Your task to perform on an android device: Set an alarm for 6pm Image 0: 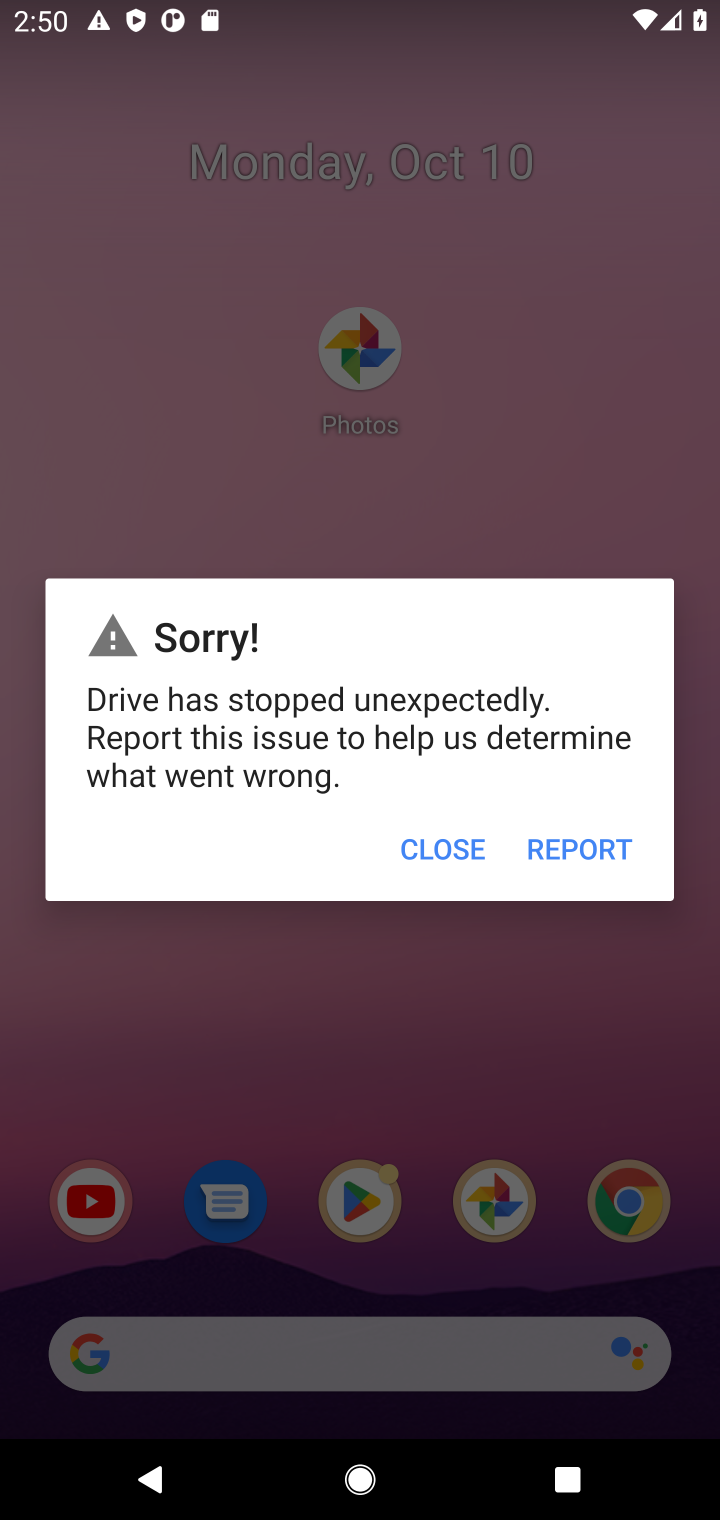
Step 0: click (442, 848)
Your task to perform on an android device: Set an alarm for 6pm Image 1: 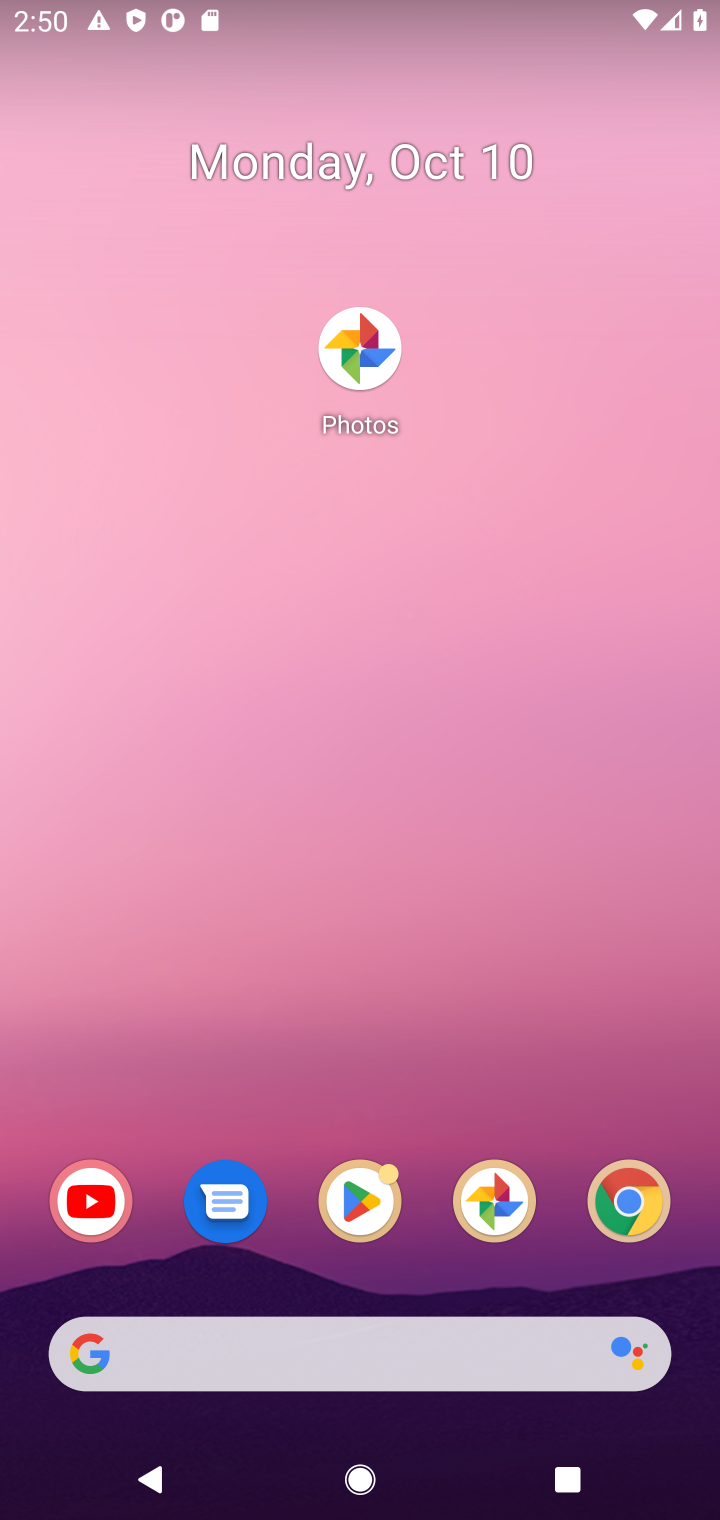
Step 1: drag from (454, 1128) to (470, 150)
Your task to perform on an android device: Set an alarm for 6pm Image 2: 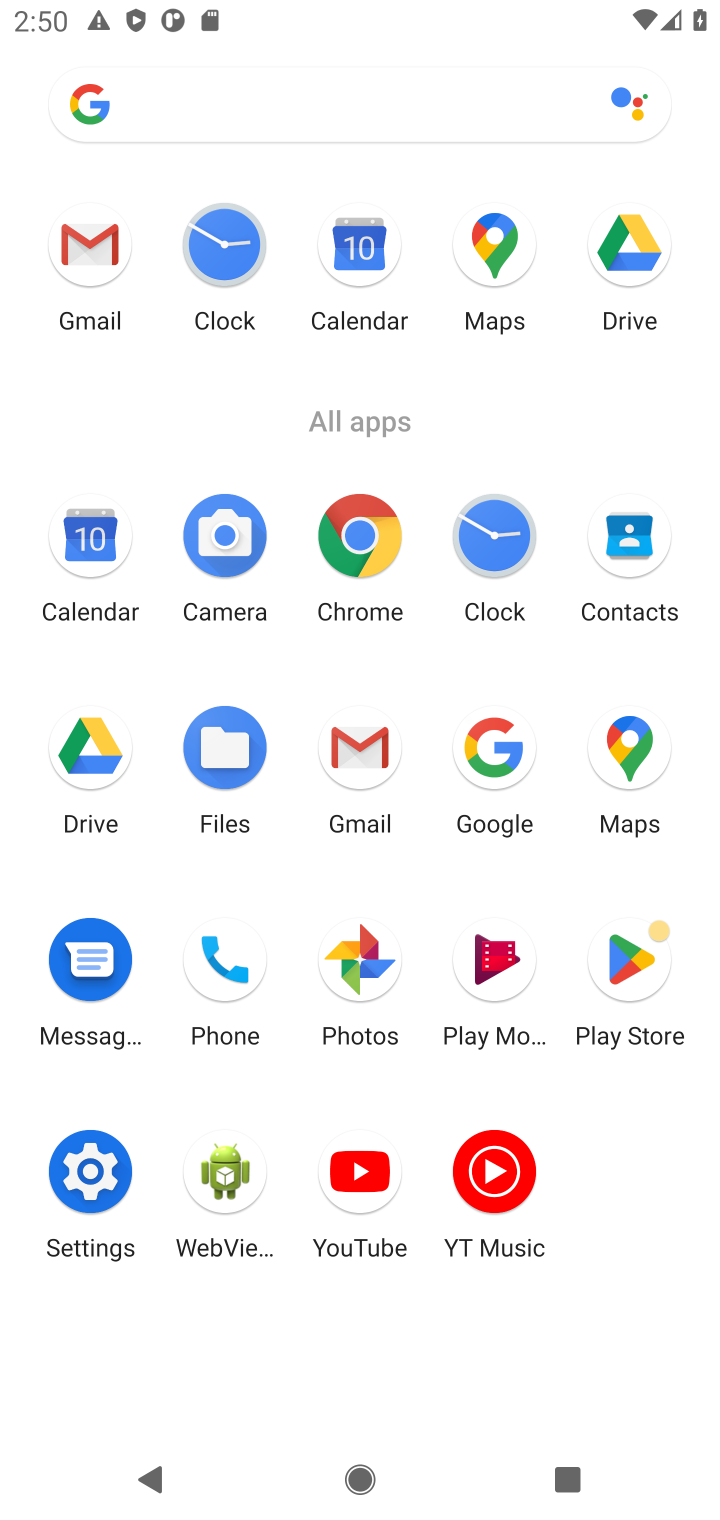
Step 2: click (499, 538)
Your task to perform on an android device: Set an alarm for 6pm Image 3: 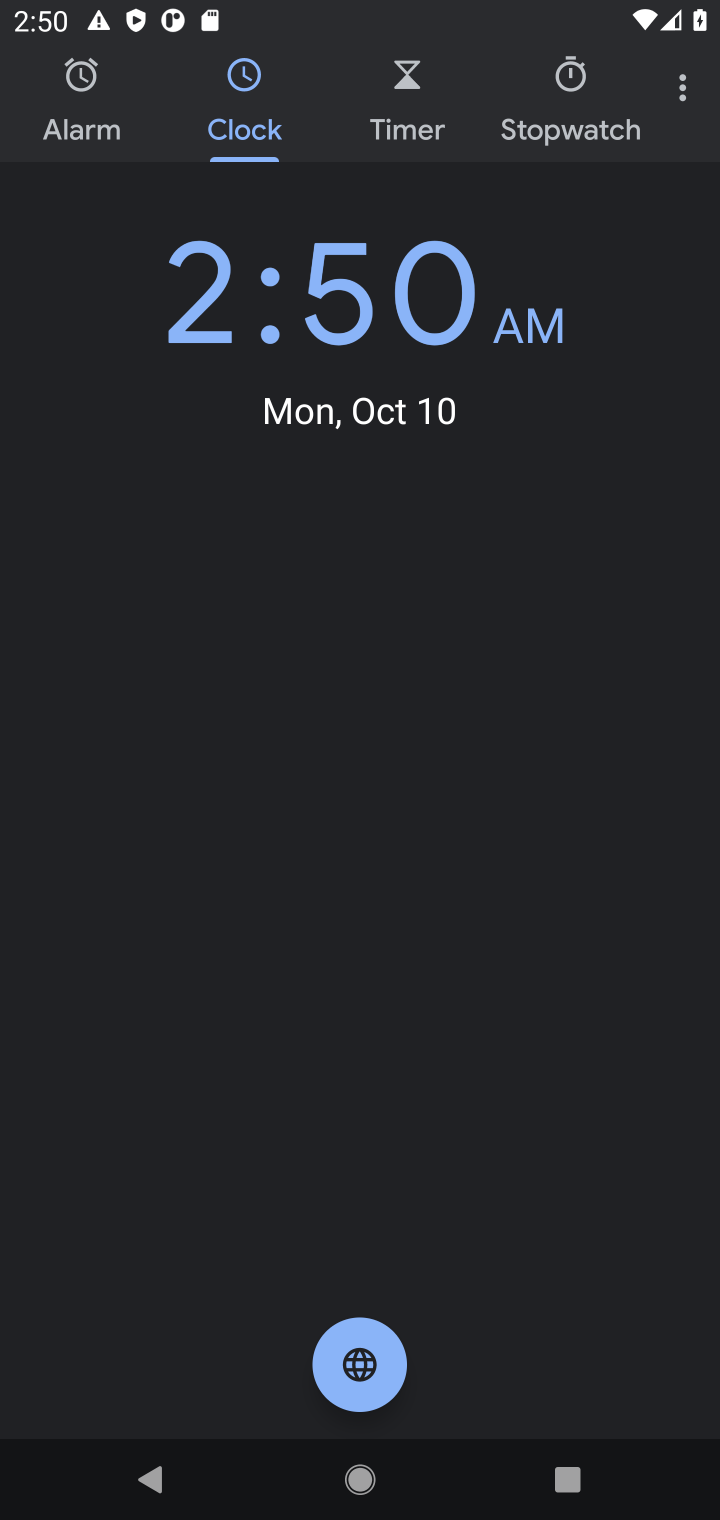
Step 3: click (206, 268)
Your task to perform on an android device: Set an alarm for 6pm Image 4: 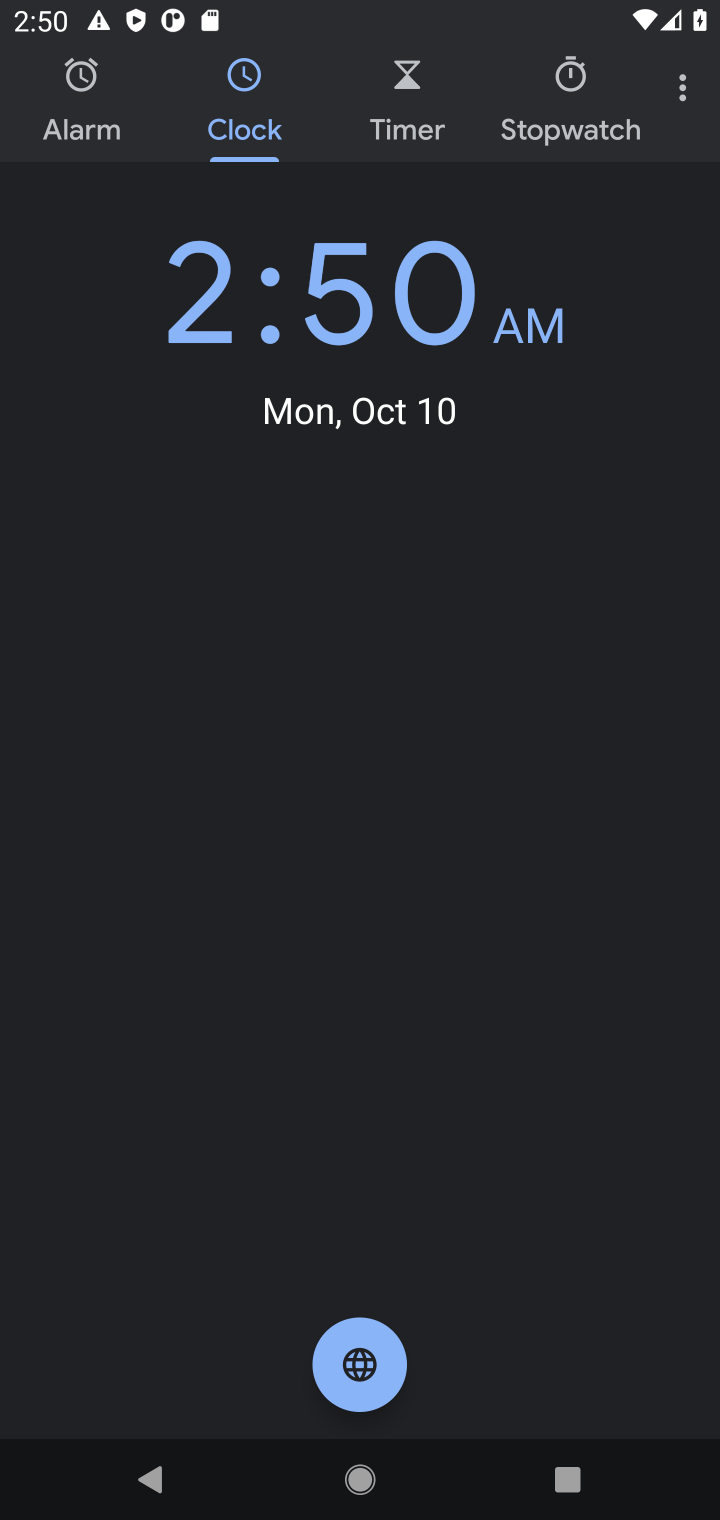
Step 4: click (94, 134)
Your task to perform on an android device: Set an alarm for 6pm Image 5: 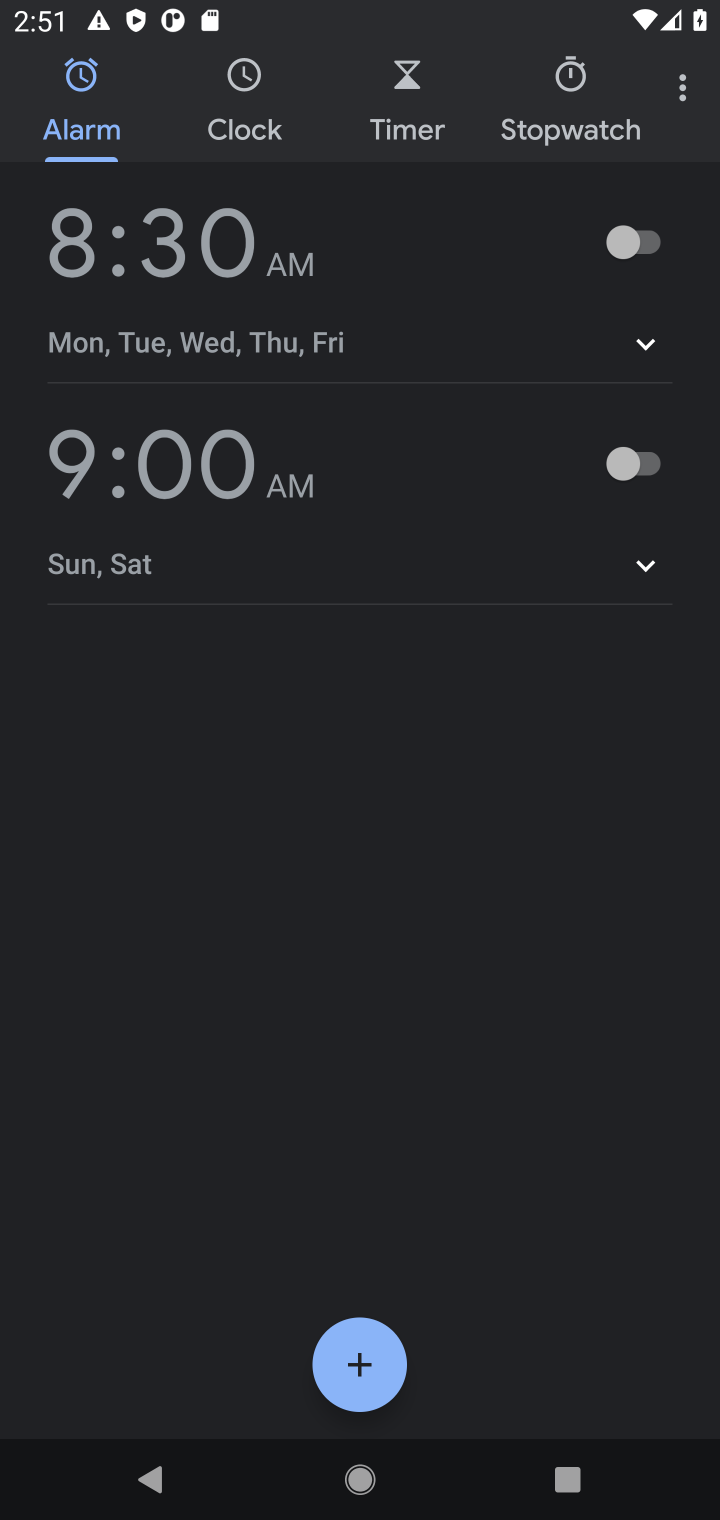
Step 5: click (263, 279)
Your task to perform on an android device: Set an alarm for 6pm Image 6: 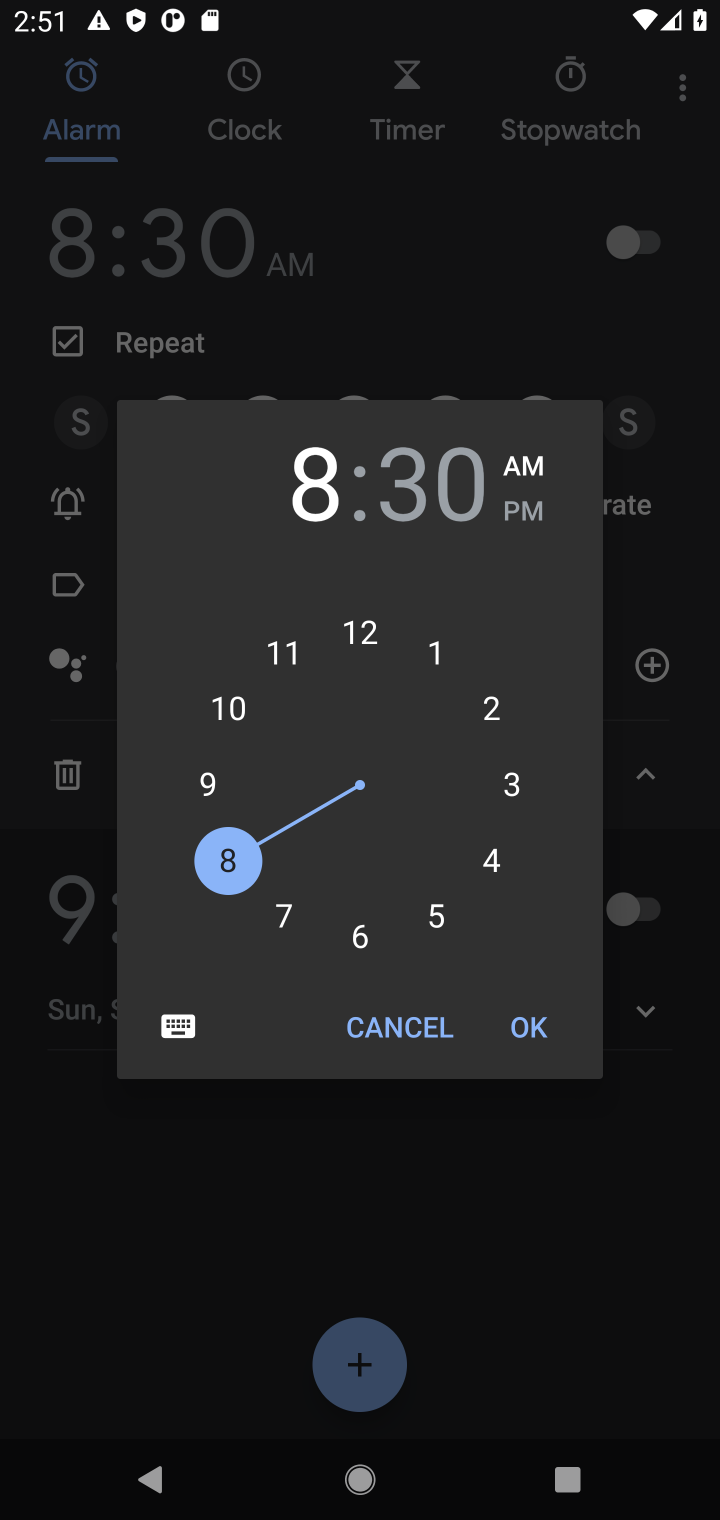
Step 6: click (361, 938)
Your task to perform on an android device: Set an alarm for 6pm Image 7: 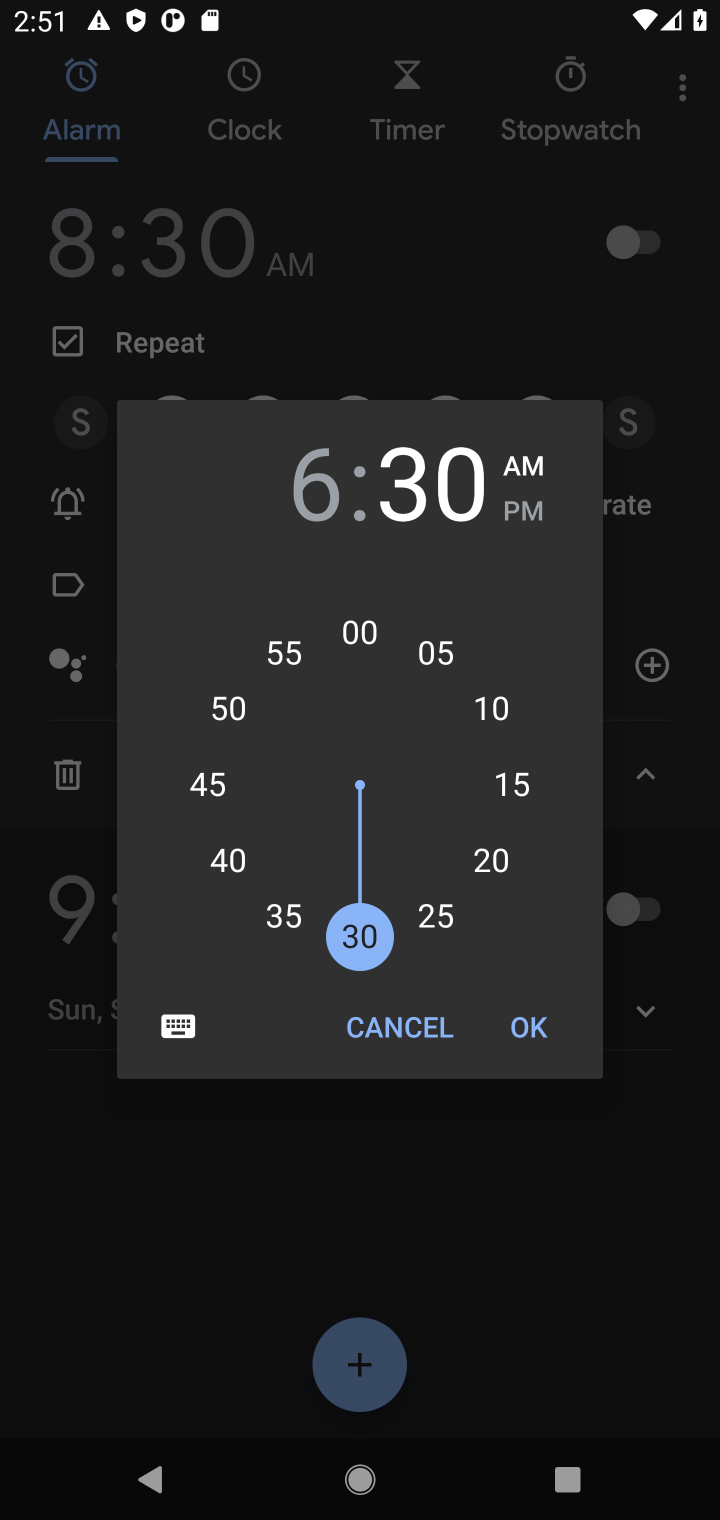
Step 7: click (364, 633)
Your task to perform on an android device: Set an alarm for 6pm Image 8: 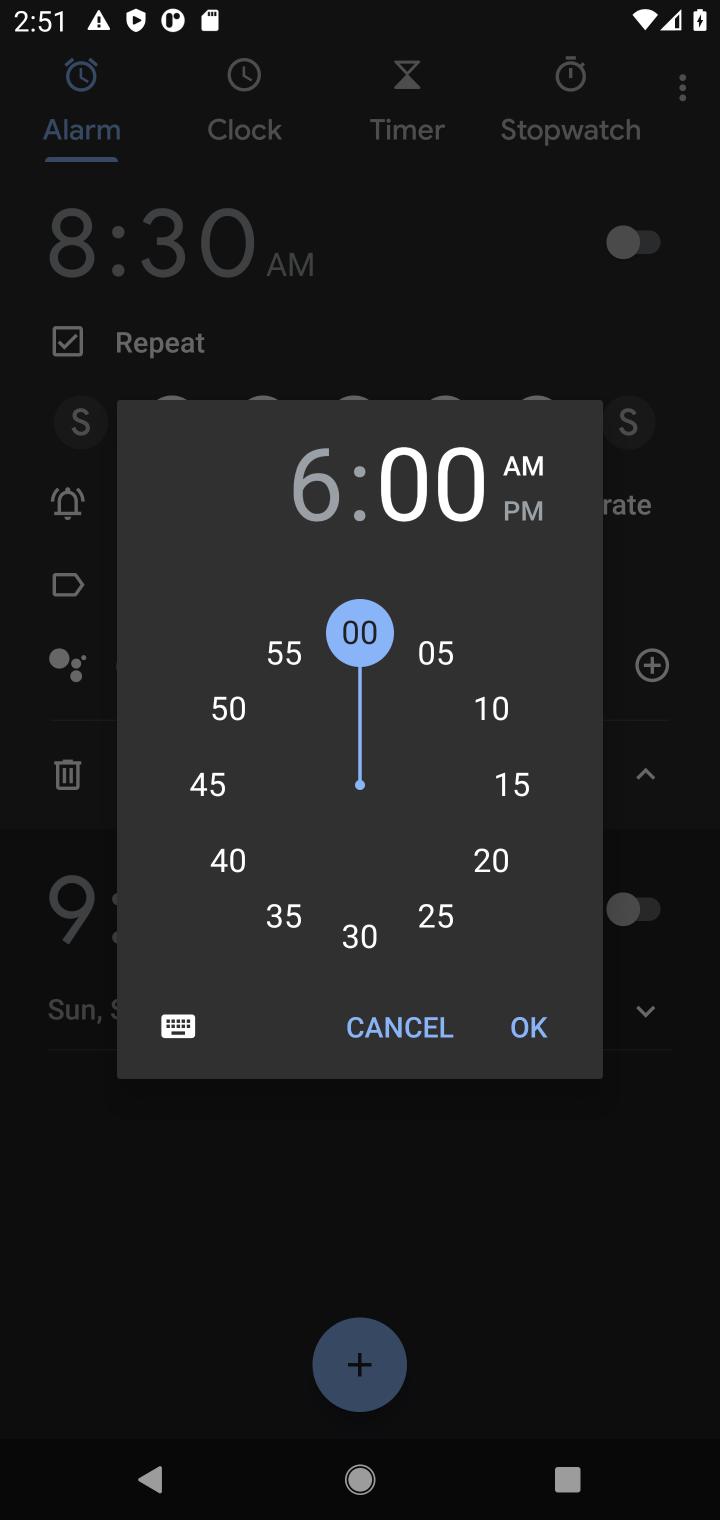
Step 8: click (515, 520)
Your task to perform on an android device: Set an alarm for 6pm Image 9: 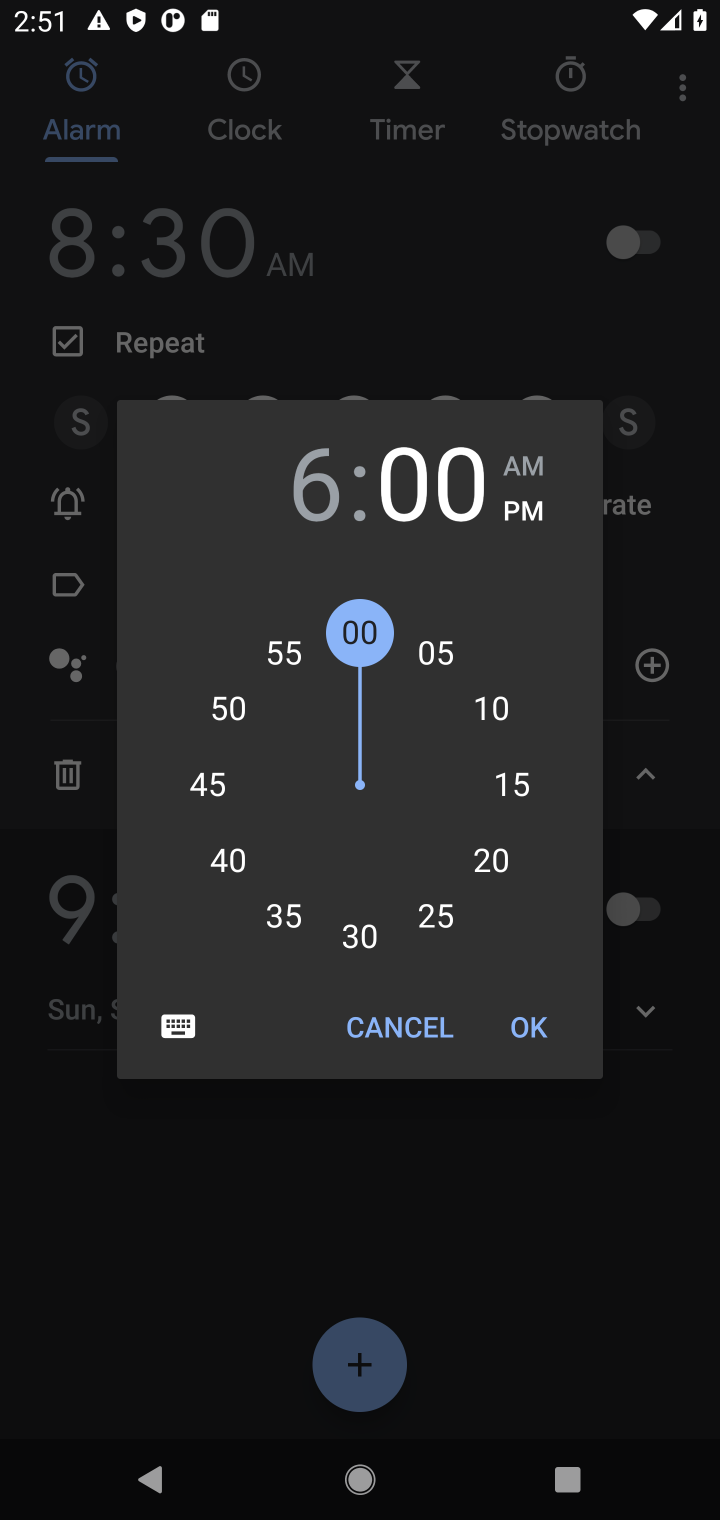
Step 9: click (543, 1028)
Your task to perform on an android device: Set an alarm for 6pm Image 10: 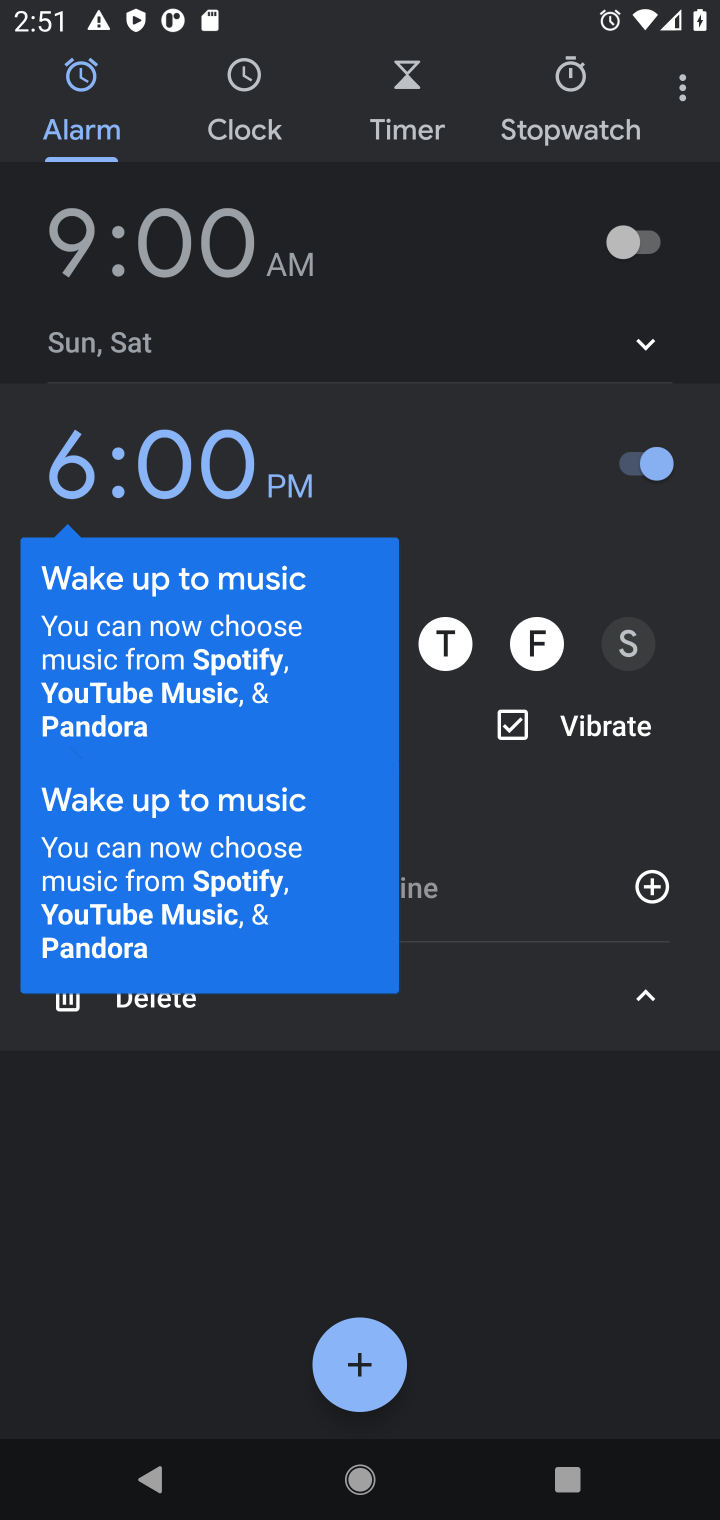
Step 10: click (517, 1076)
Your task to perform on an android device: Set an alarm for 6pm Image 11: 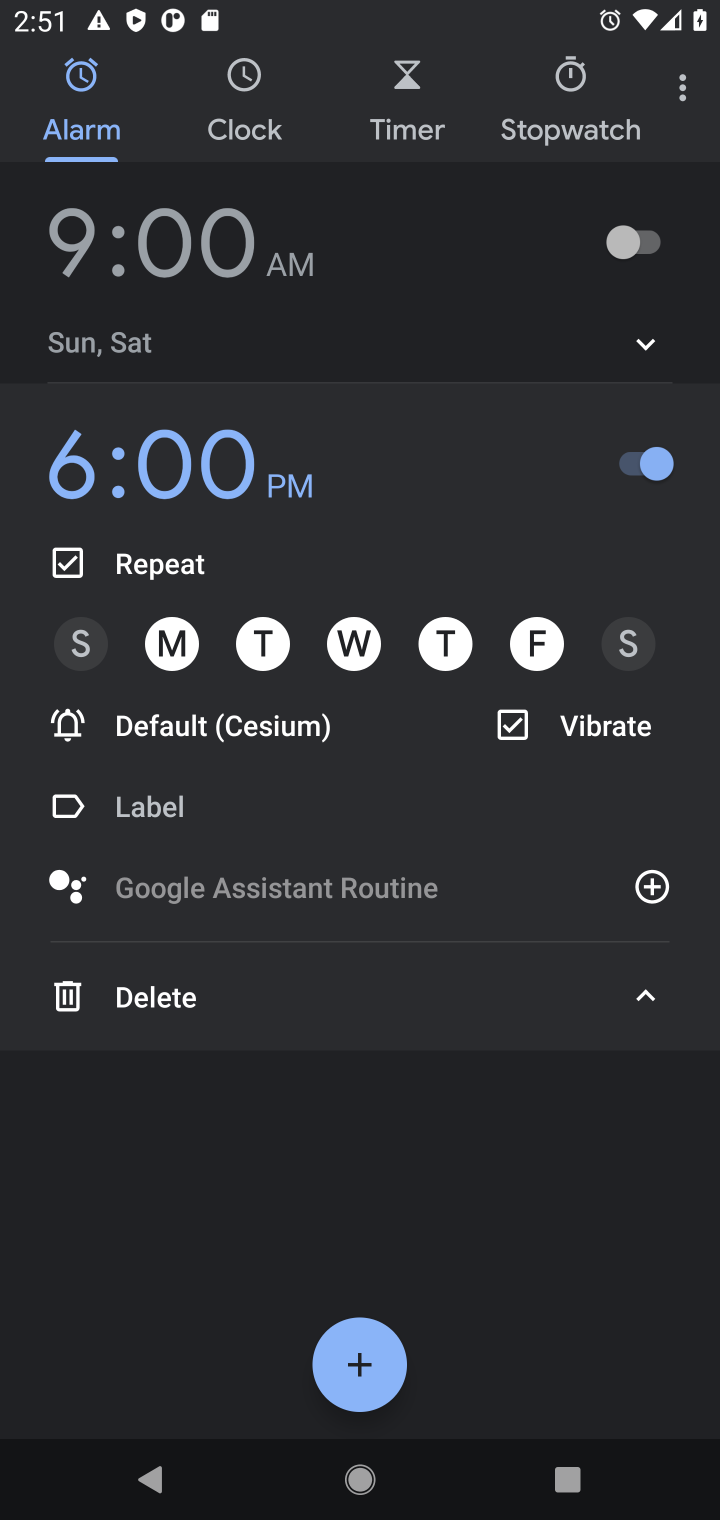
Step 11: click (654, 998)
Your task to perform on an android device: Set an alarm for 6pm Image 12: 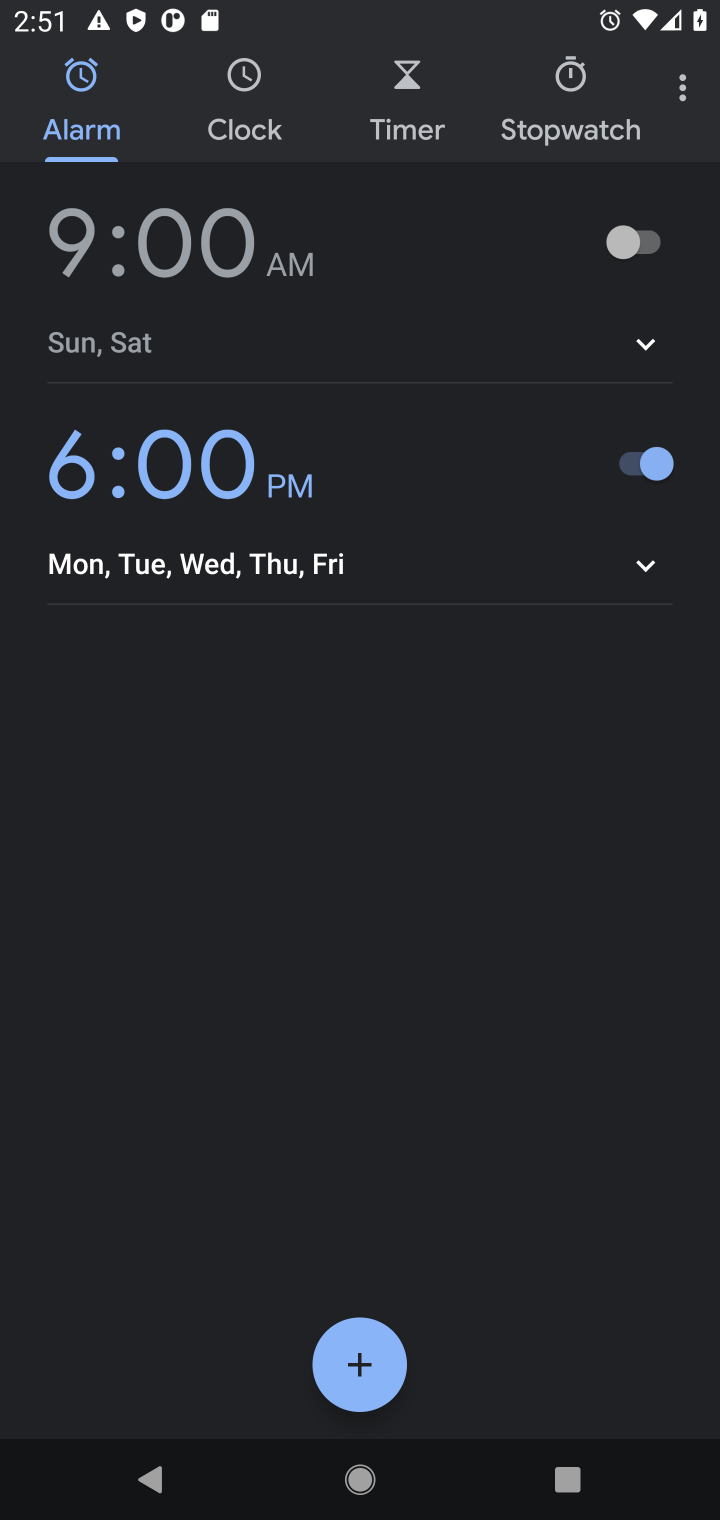
Step 12: drag from (527, 1058) to (545, 959)
Your task to perform on an android device: Set an alarm for 6pm Image 13: 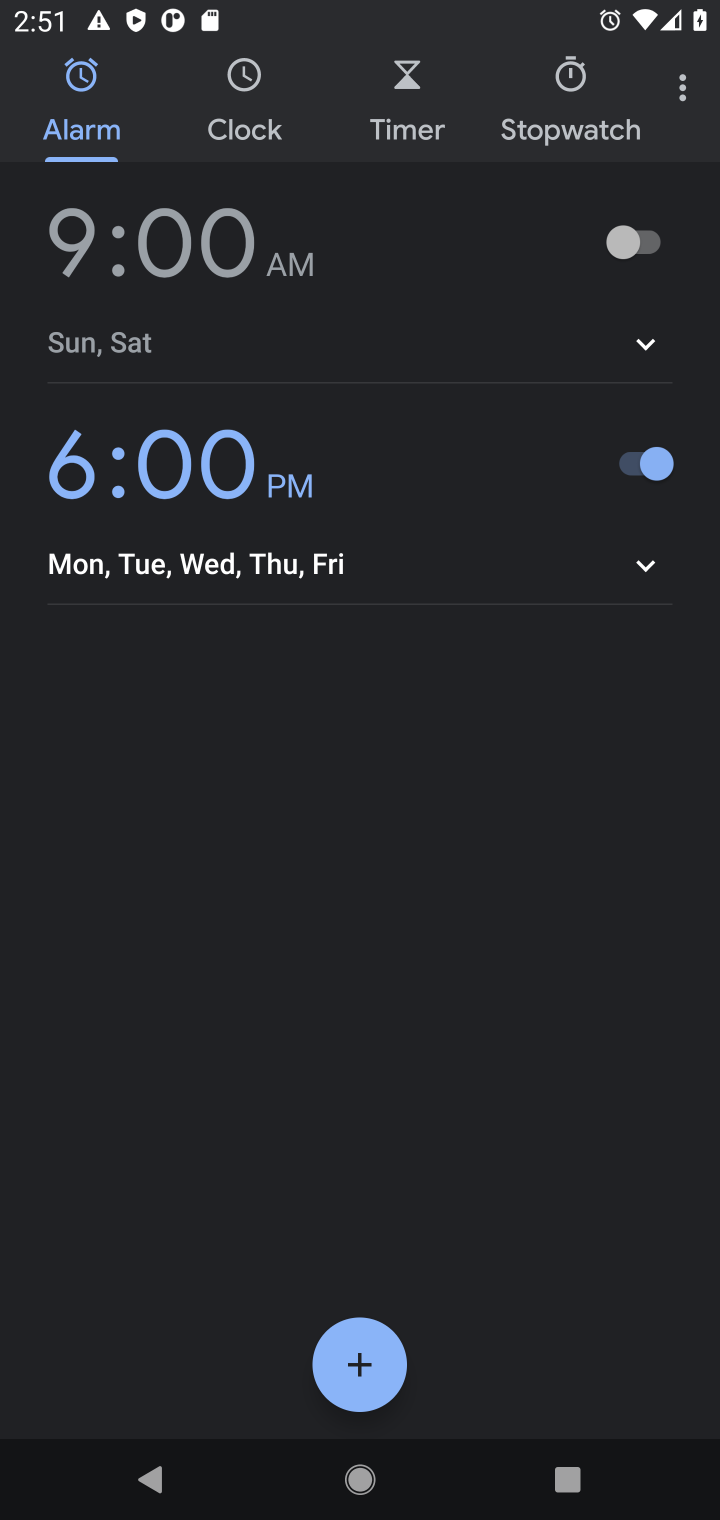
Step 13: click (545, 959)
Your task to perform on an android device: Set an alarm for 6pm Image 14: 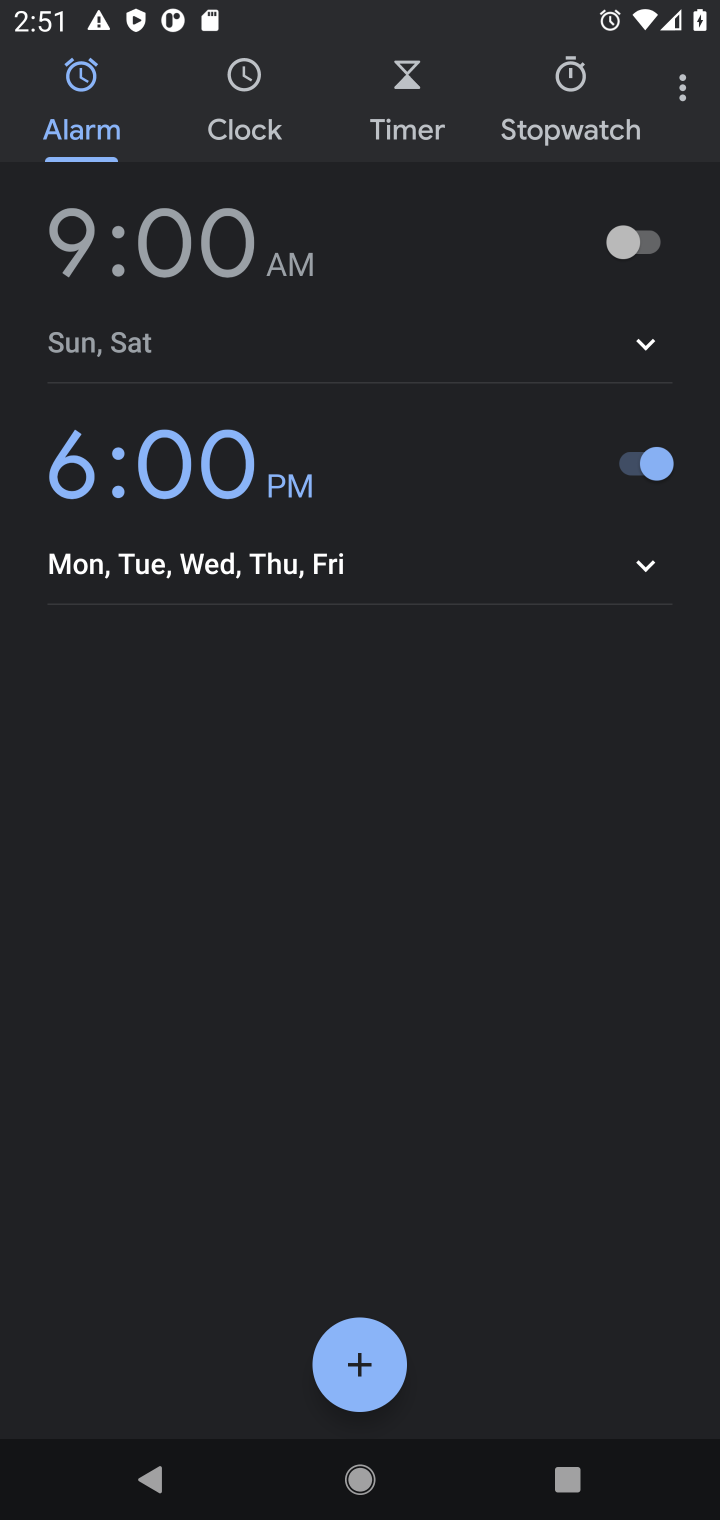
Step 14: click (545, 959)
Your task to perform on an android device: Set an alarm for 6pm Image 15: 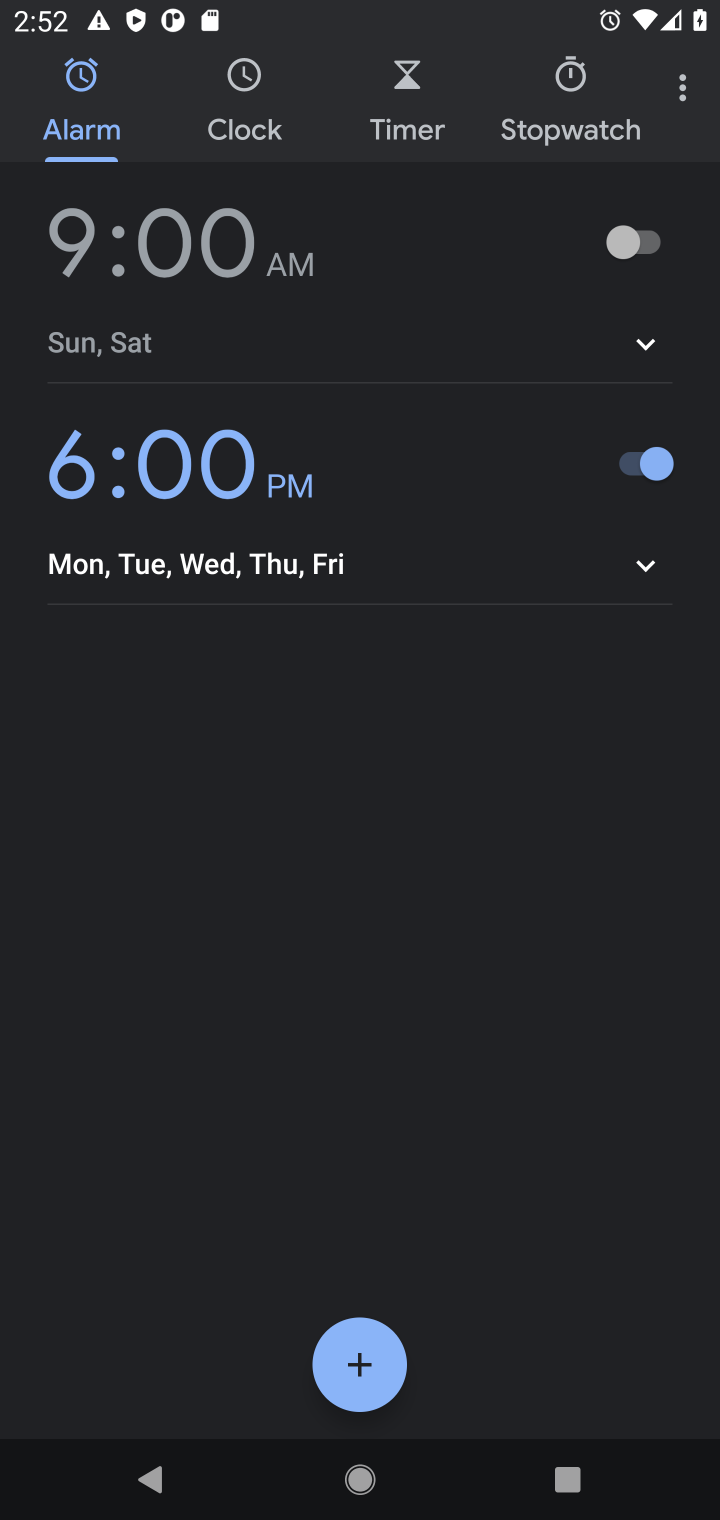
Step 15: task complete